Your task to perform on an android device: Open a new Chrome incognito tab Image 0: 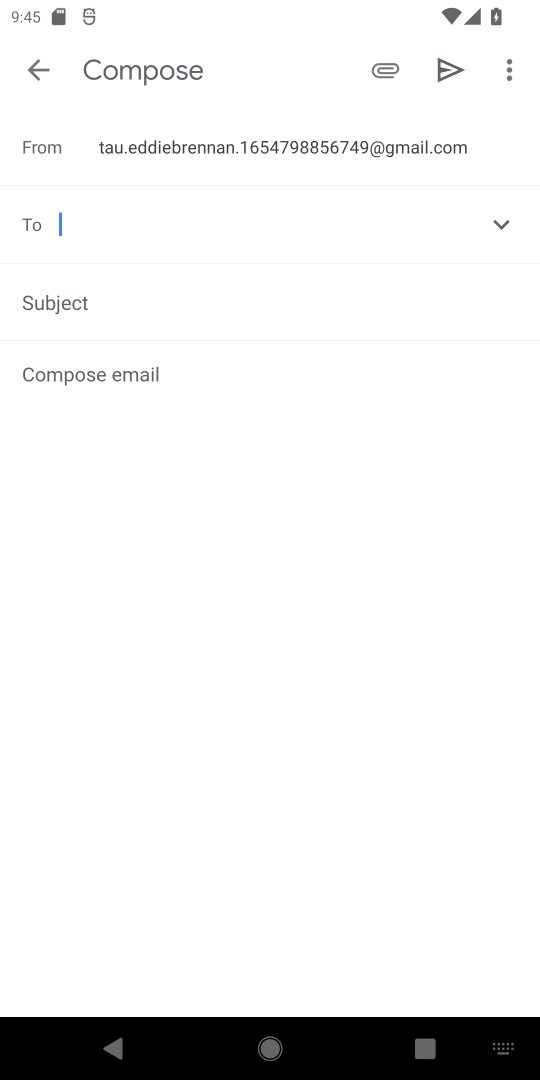
Step 0: press home button
Your task to perform on an android device: Open a new Chrome incognito tab Image 1: 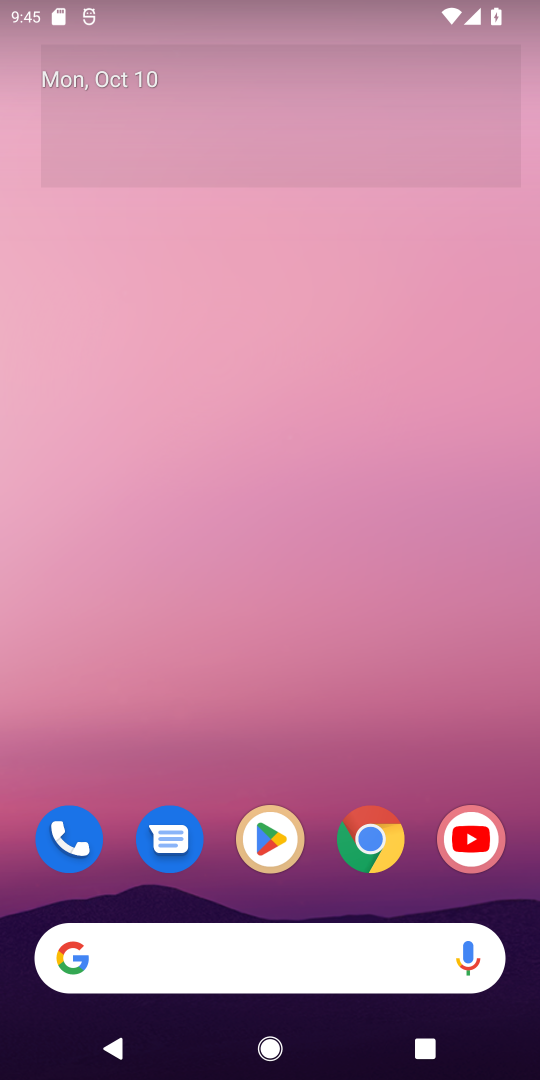
Step 1: drag from (323, 896) to (332, 17)
Your task to perform on an android device: Open a new Chrome incognito tab Image 2: 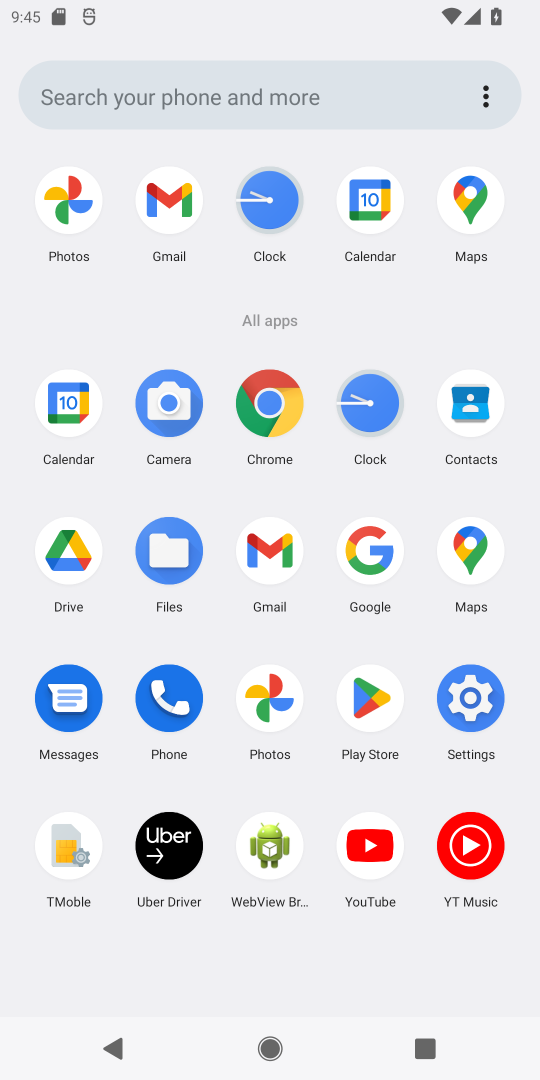
Step 2: click (267, 406)
Your task to perform on an android device: Open a new Chrome incognito tab Image 3: 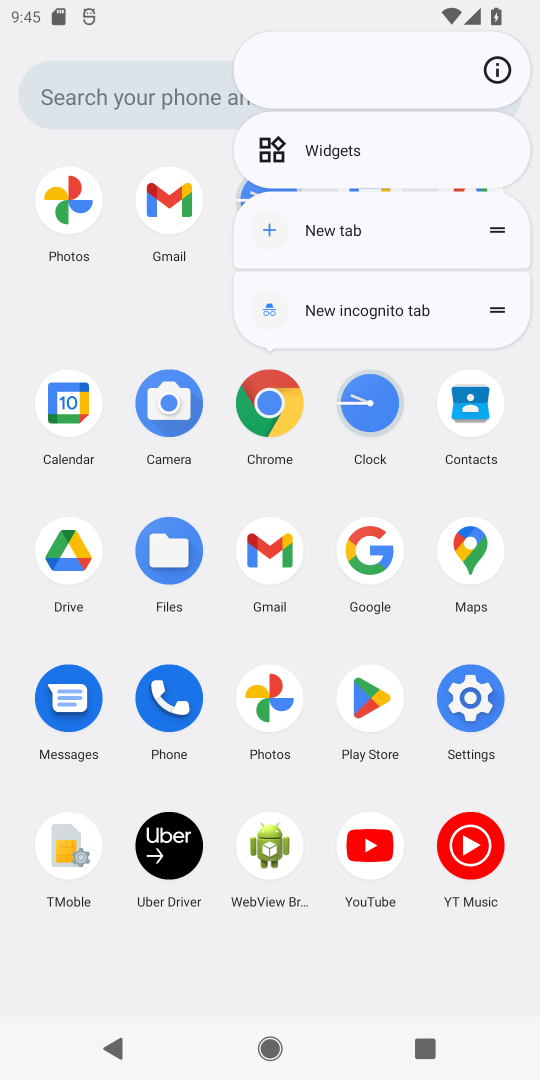
Step 3: click (279, 399)
Your task to perform on an android device: Open a new Chrome incognito tab Image 4: 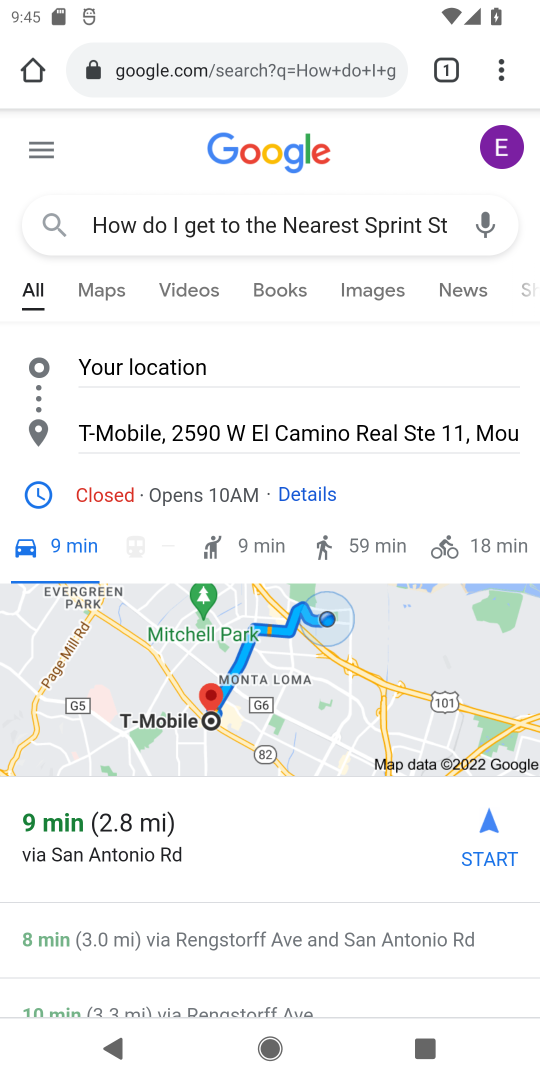
Step 4: task complete